Your task to perform on an android device: Open the Play Movies app and select the watchlist tab. Image 0: 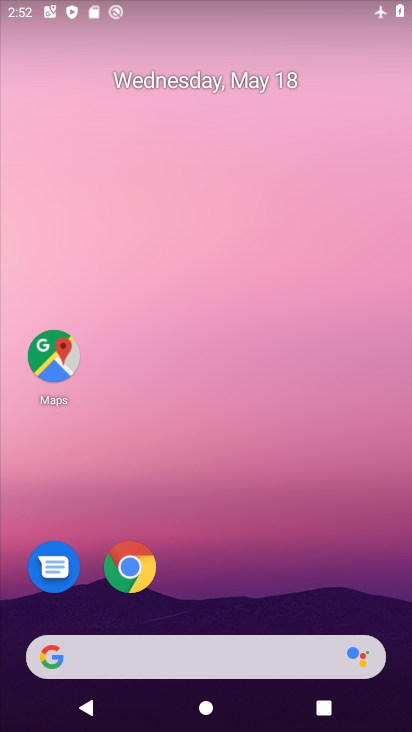
Step 0: drag from (242, 530) to (271, 242)
Your task to perform on an android device: Open the Play Movies app and select the watchlist tab. Image 1: 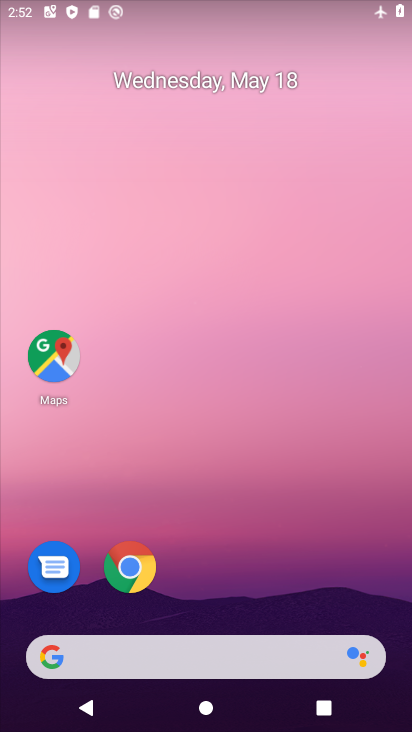
Step 1: drag from (286, 595) to (258, 172)
Your task to perform on an android device: Open the Play Movies app and select the watchlist tab. Image 2: 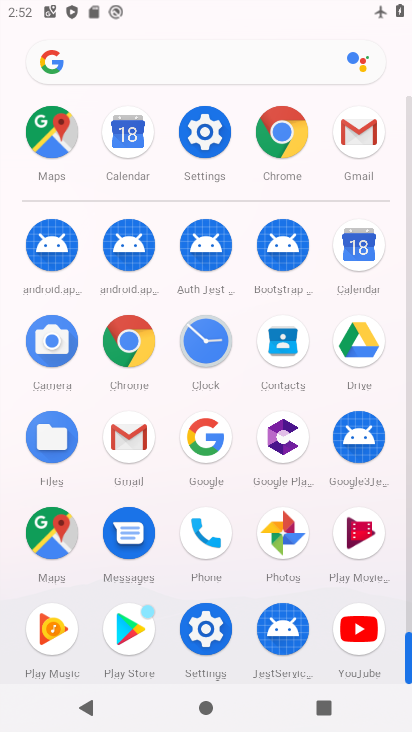
Step 2: click (344, 545)
Your task to perform on an android device: Open the Play Movies app and select the watchlist tab. Image 3: 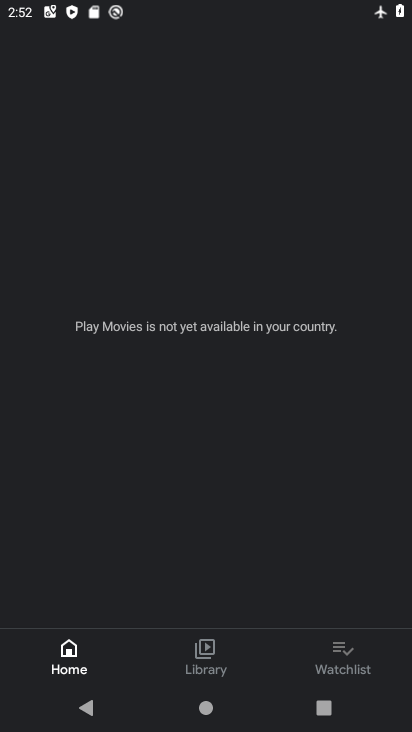
Step 3: click (360, 648)
Your task to perform on an android device: Open the Play Movies app and select the watchlist tab. Image 4: 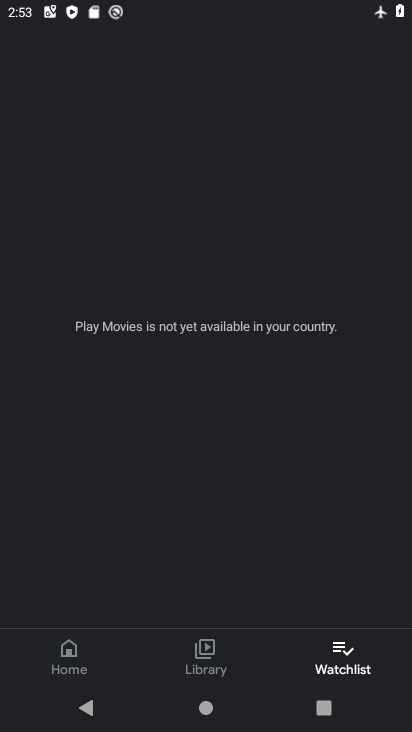
Step 4: task complete